Your task to perform on an android device: turn off picture-in-picture Image 0: 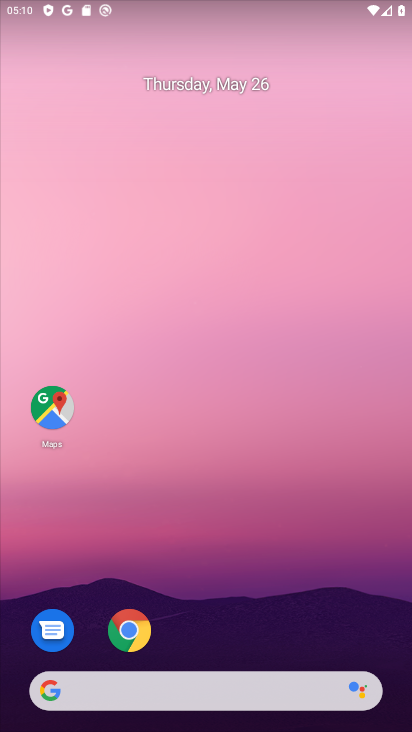
Step 0: drag from (171, 665) to (243, 214)
Your task to perform on an android device: turn off picture-in-picture Image 1: 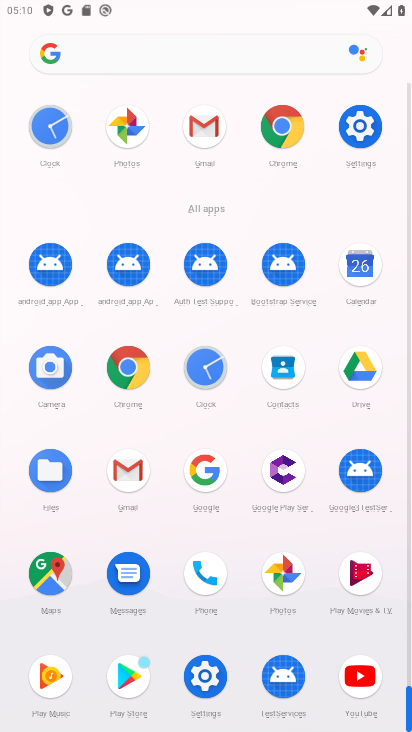
Step 1: click (194, 668)
Your task to perform on an android device: turn off picture-in-picture Image 2: 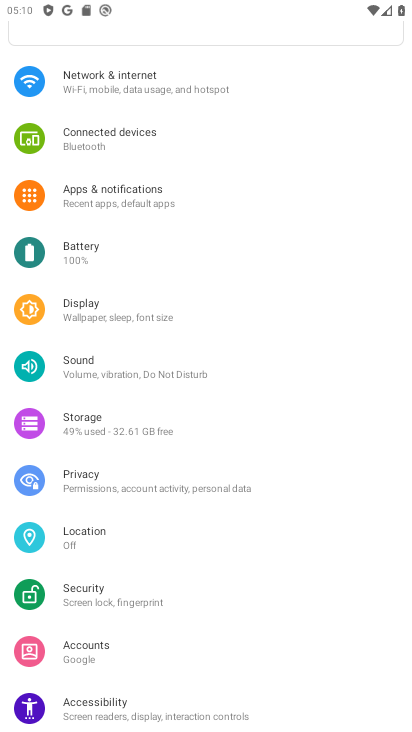
Step 2: click (119, 189)
Your task to perform on an android device: turn off picture-in-picture Image 3: 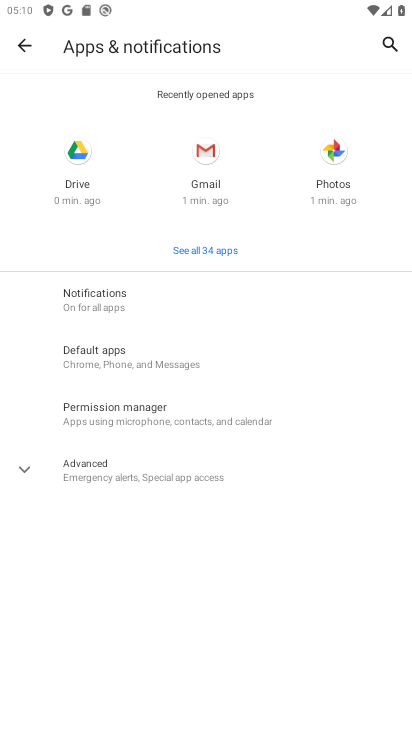
Step 3: click (150, 469)
Your task to perform on an android device: turn off picture-in-picture Image 4: 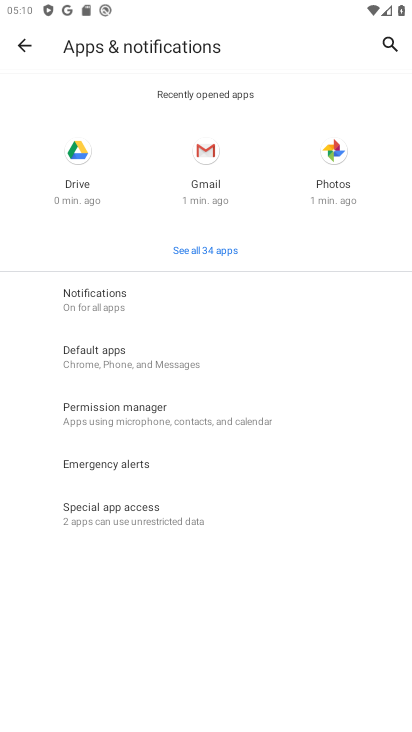
Step 4: click (149, 517)
Your task to perform on an android device: turn off picture-in-picture Image 5: 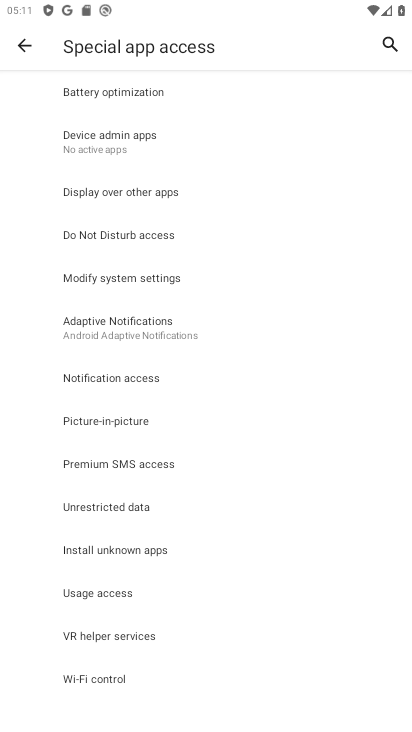
Step 5: click (144, 418)
Your task to perform on an android device: turn off picture-in-picture Image 6: 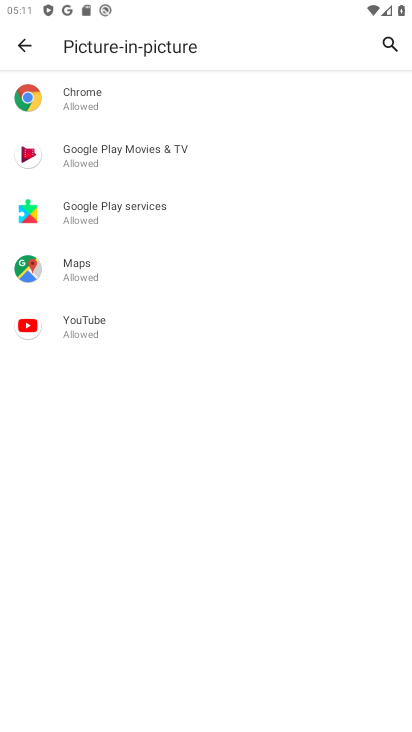
Step 6: click (112, 96)
Your task to perform on an android device: turn off picture-in-picture Image 7: 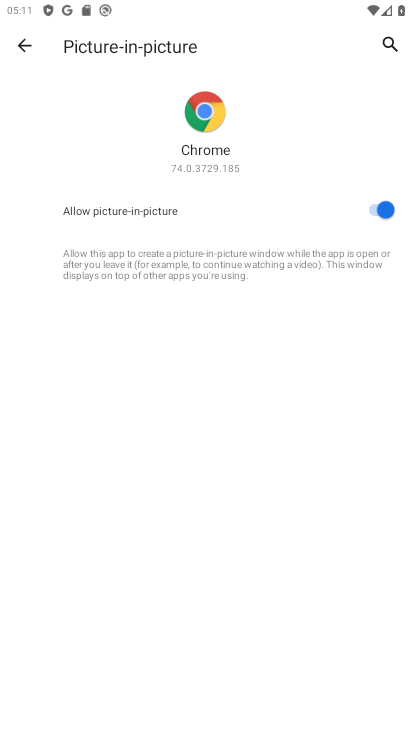
Step 7: click (375, 203)
Your task to perform on an android device: turn off picture-in-picture Image 8: 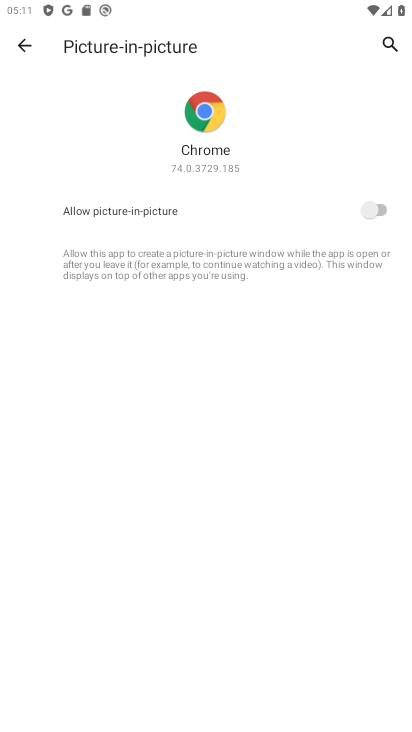
Step 8: press back button
Your task to perform on an android device: turn off picture-in-picture Image 9: 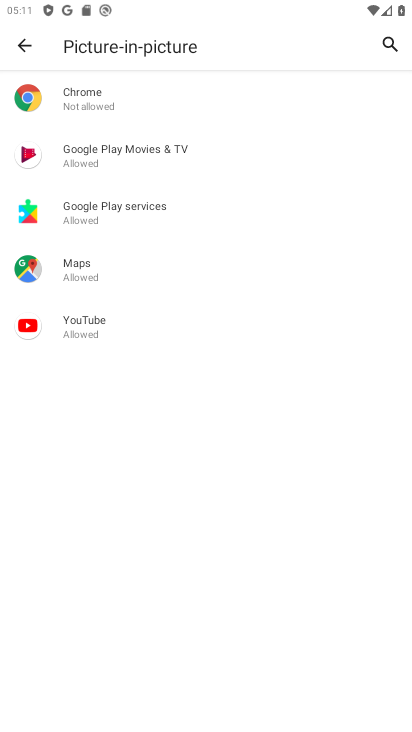
Step 9: click (215, 156)
Your task to perform on an android device: turn off picture-in-picture Image 10: 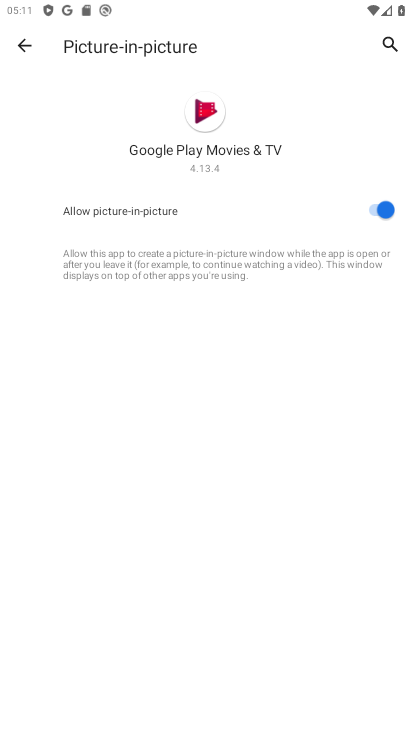
Step 10: click (371, 210)
Your task to perform on an android device: turn off picture-in-picture Image 11: 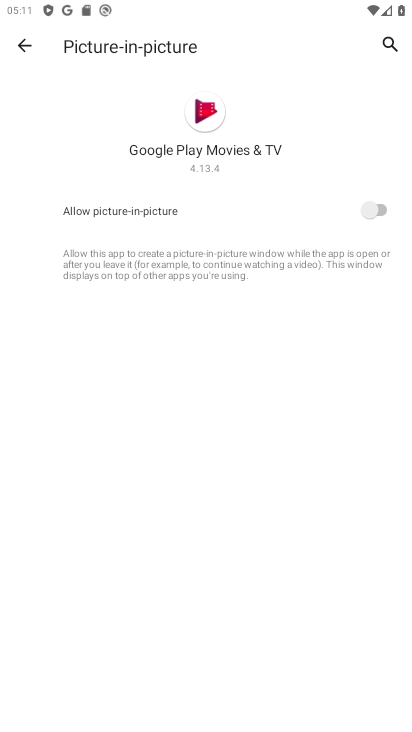
Step 11: press back button
Your task to perform on an android device: turn off picture-in-picture Image 12: 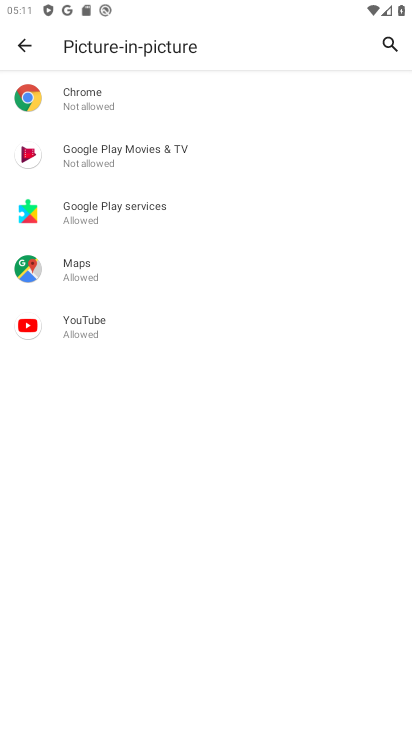
Step 12: click (106, 268)
Your task to perform on an android device: turn off picture-in-picture Image 13: 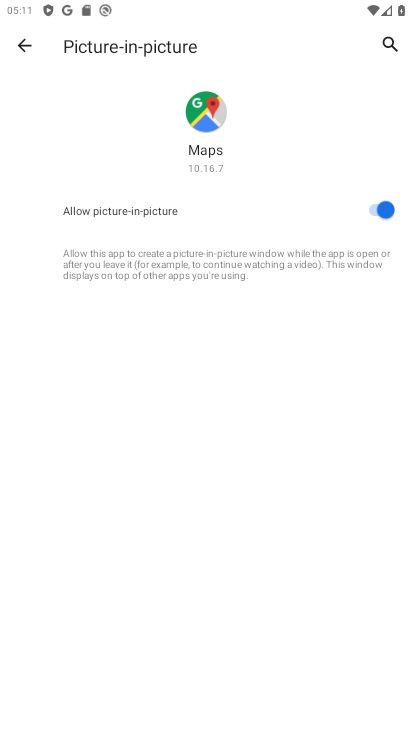
Step 13: click (364, 205)
Your task to perform on an android device: turn off picture-in-picture Image 14: 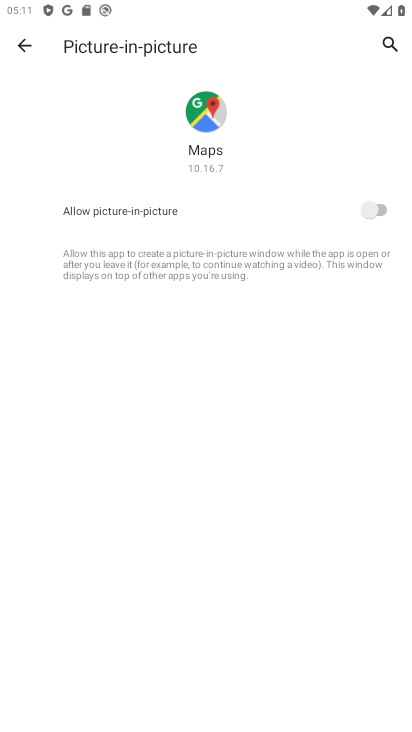
Step 14: press back button
Your task to perform on an android device: turn off picture-in-picture Image 15: 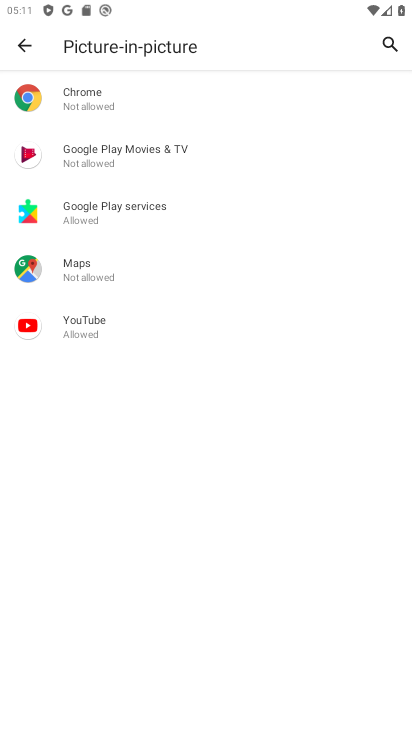
Step 15: click (145, 322)
Your task to perform on an android device: turn off picture-in-picture Image 16: 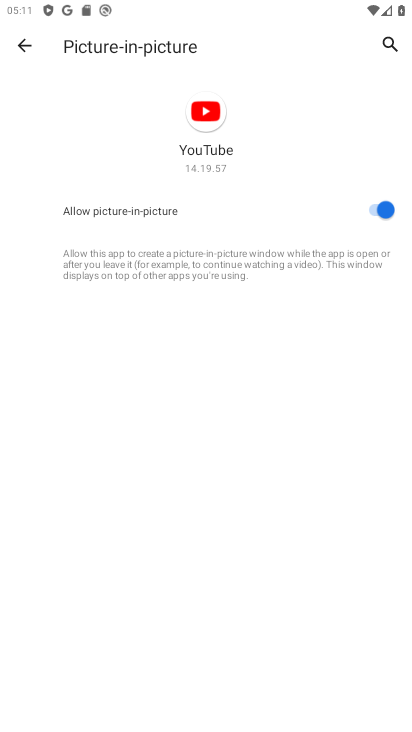
Step 16: click (376, 205)
Your task to perform on an android device: turn off picture-in-picture Image 17: 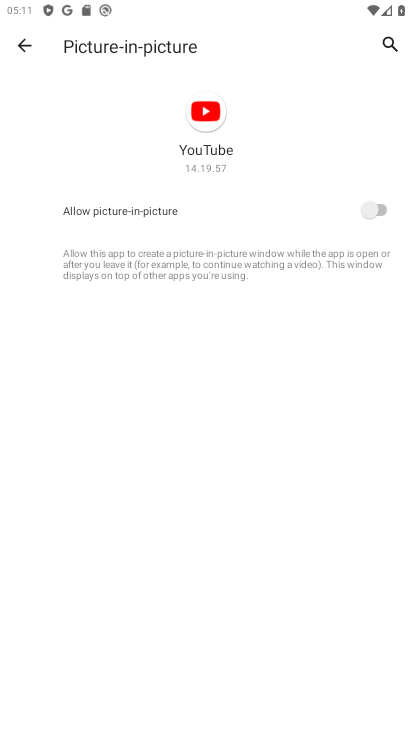
Step 17: task complete